Your task to perform on an android device: see creations saved in the google photos Image 0: 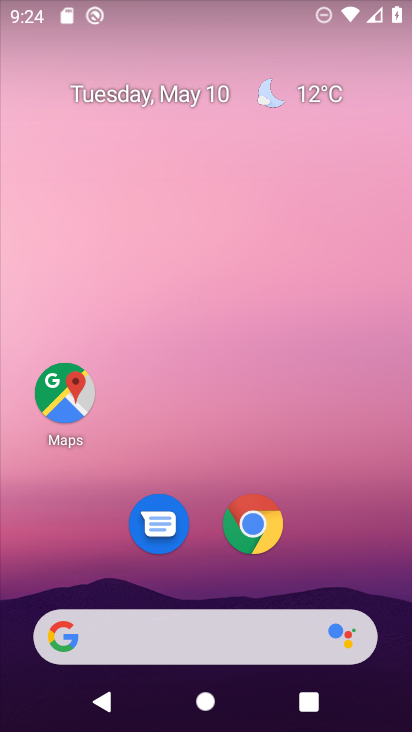
Step 0: drag from (358, 552) to (297, 30)
Your task to perform on an android device: see creations saved in the google photos Image 1: 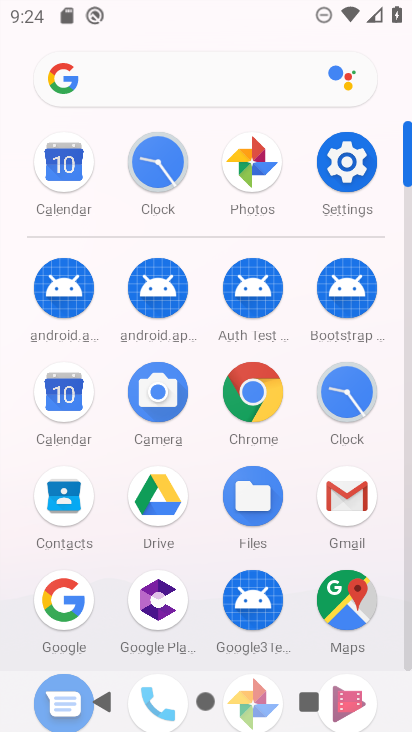
Step 1: click (255, 162)
Your task to perform on an android device: see creations saved in the google photos Image 2: 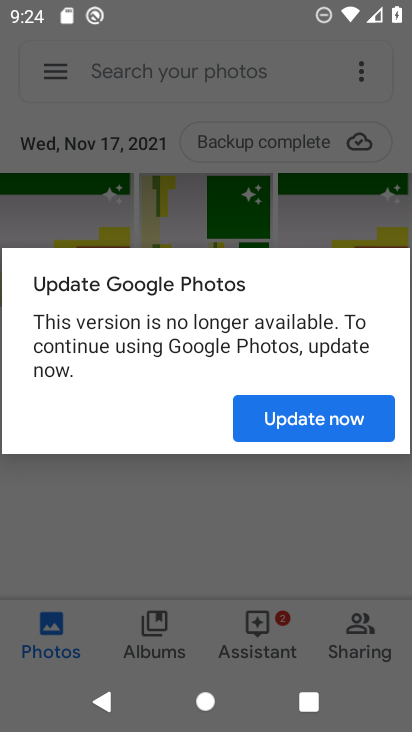
Step 2: click (316, 425)
Your task to perform on an android device: see creations saved in the google photos Image 3: 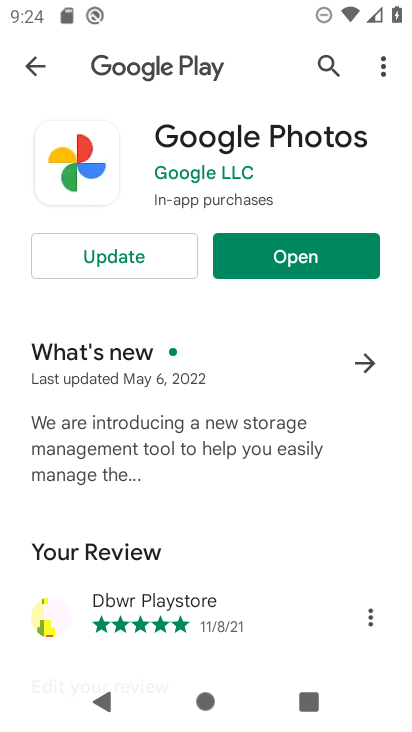
Step 3: click (298, 253)
Your task to perform on an android device: see creations saved in the google photos Image 4: 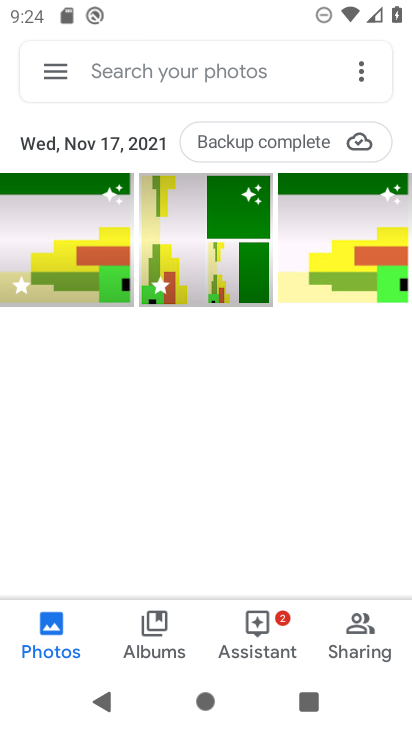
Step 4: click (226, 66)
Your task to perform on an android device: see creations saved in the google photos Image 5: 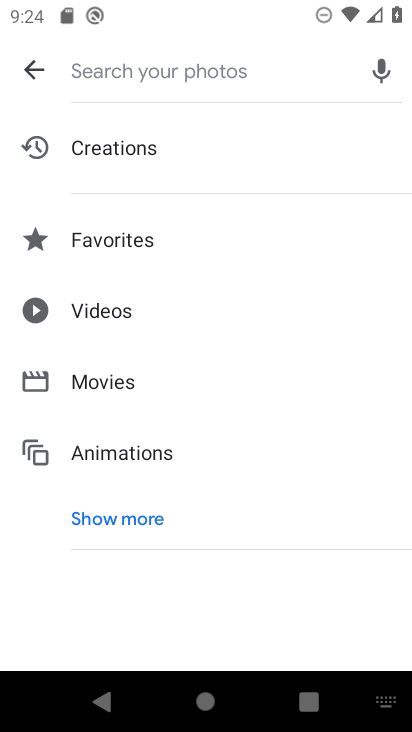
Step 5: click (128, 518)
Your task to perform on an android device: see creations saved in the google photos Image 6: 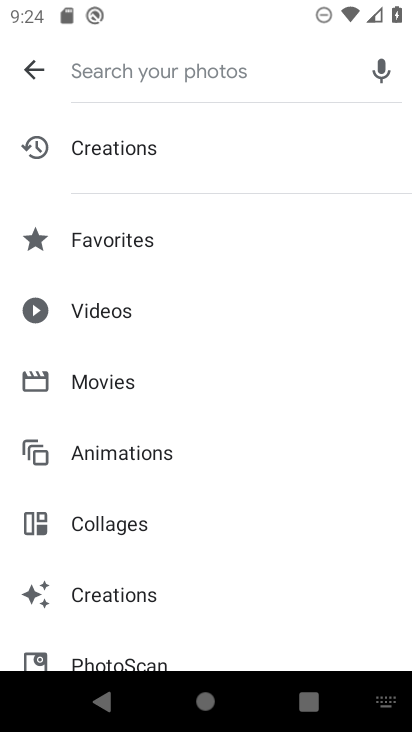
Step 6: click (128, 601)
Your task to perform on an android device: see creations saved in the google photos Image 7: 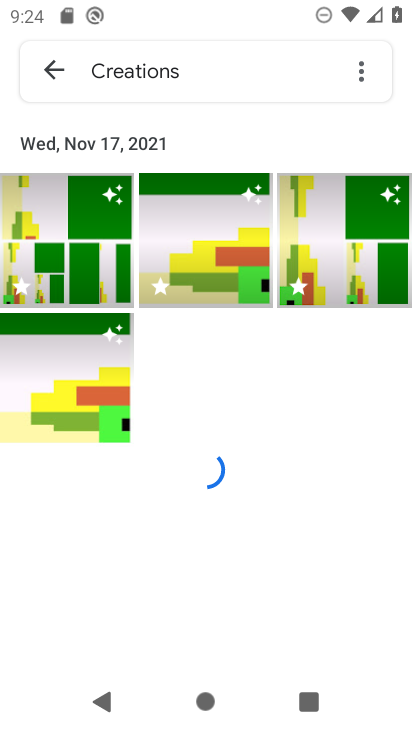
Step 7: task complete